Your task to perform on an android device: turn off wifi Image 0: 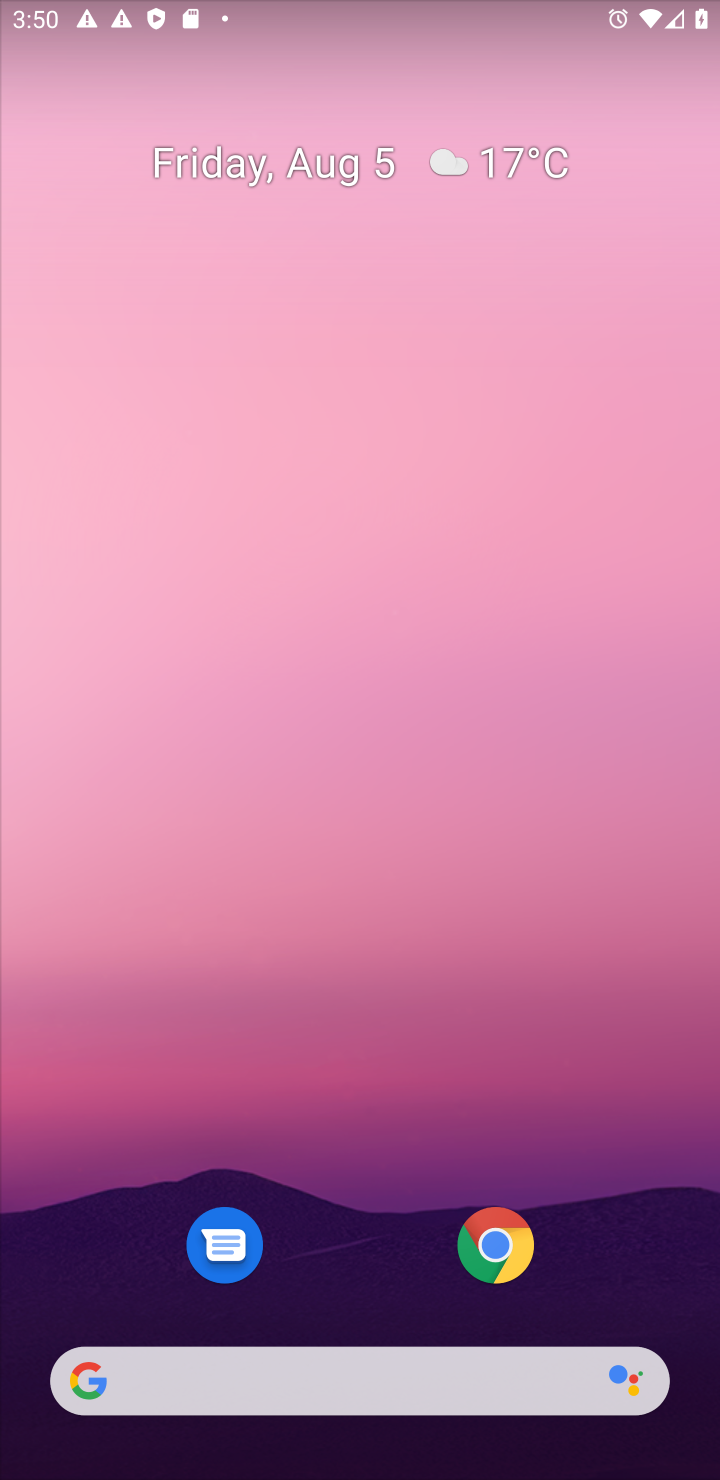
Step 0: drag from (68, 1313) to (432, 380)
Your task to perform on an android device: turn off wifi Image 1: 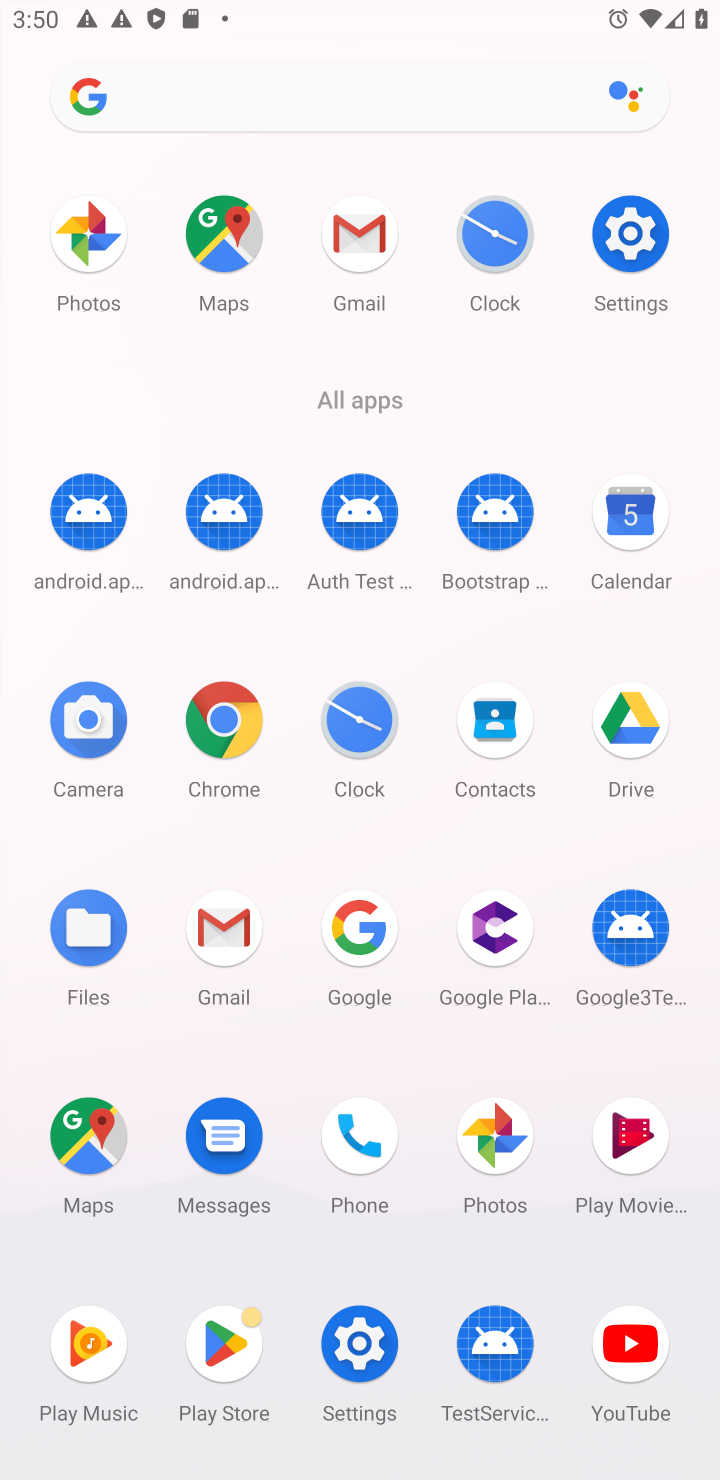
Step 1: click (355, 1355)
Your task to perform on an android device: turn off wifi Image 2: 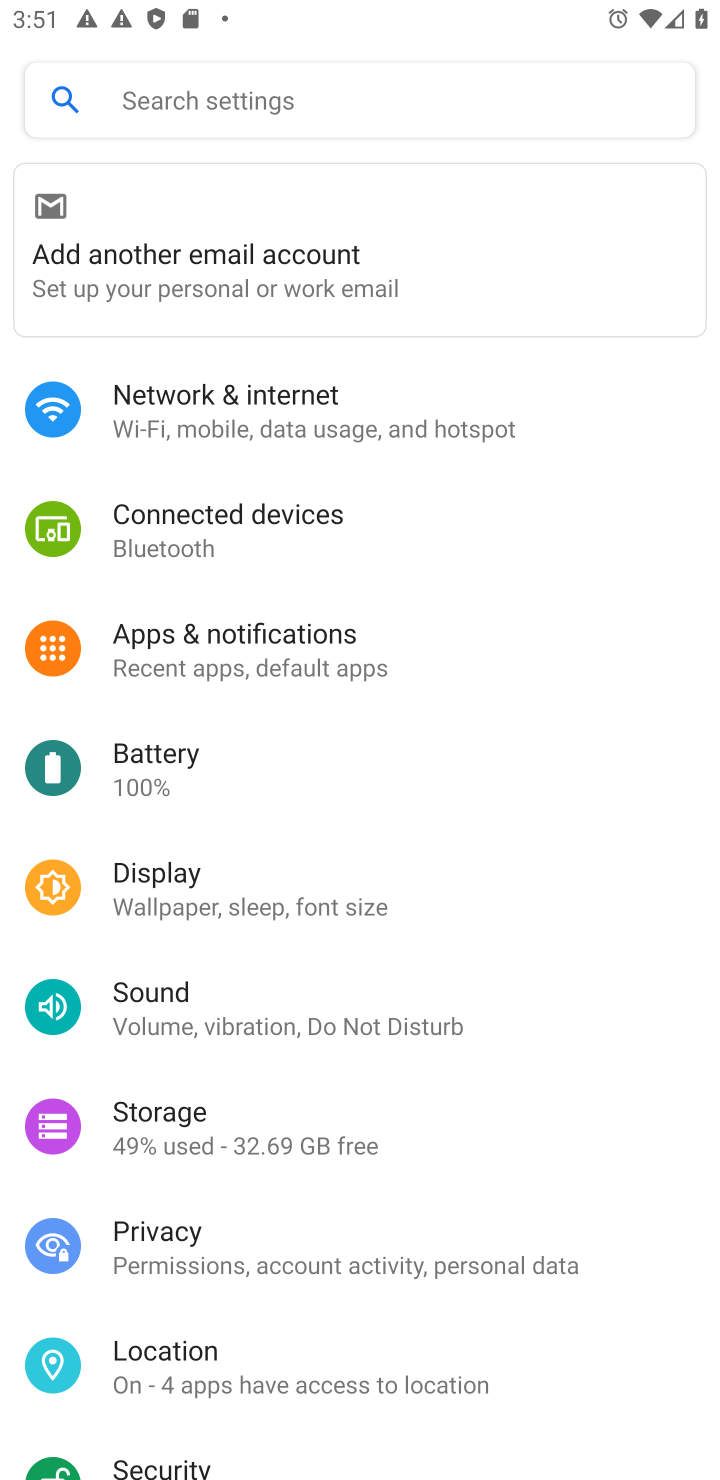
Step 2: click (284, 415)
Your task to perform on an android device: turn off wifi Image 3: 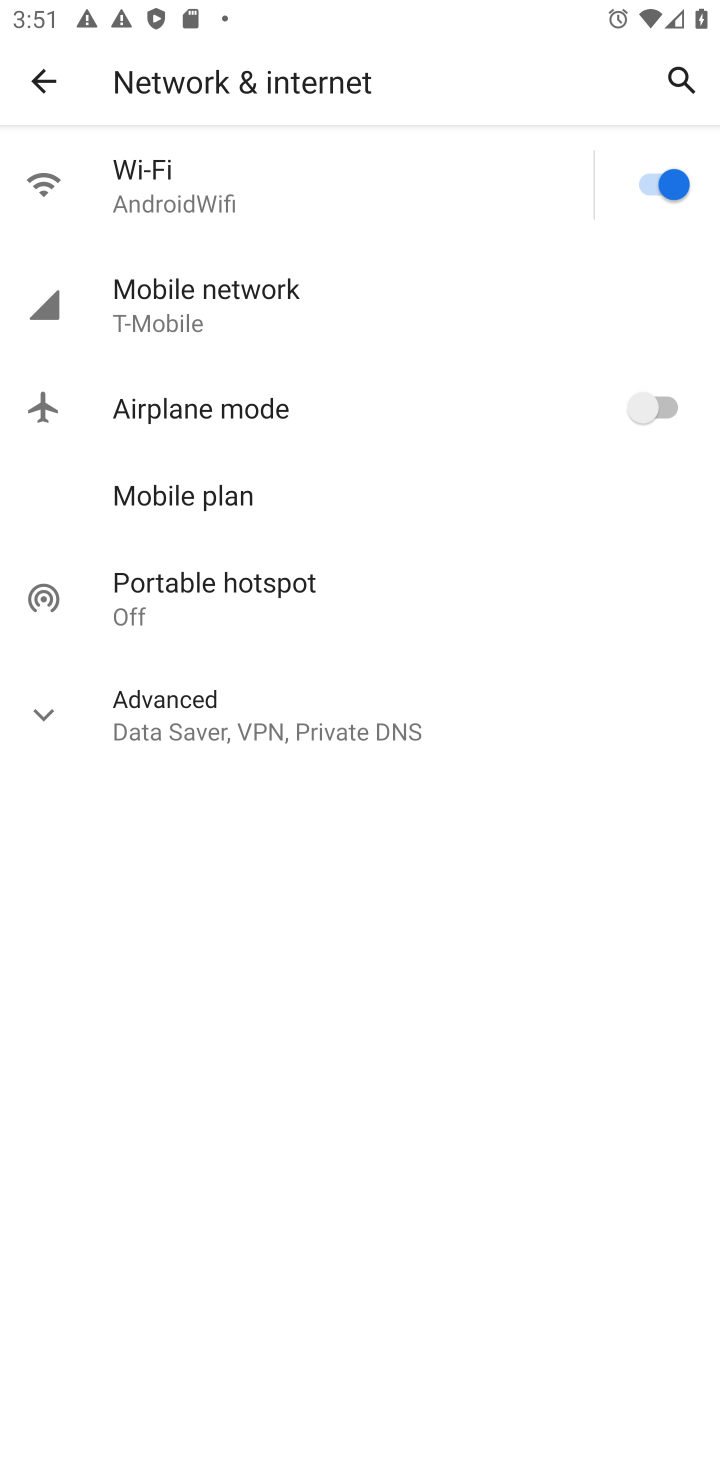
Step 3: click (660, 183)
Your task to perform on an android device: turn off wifi Image 4: 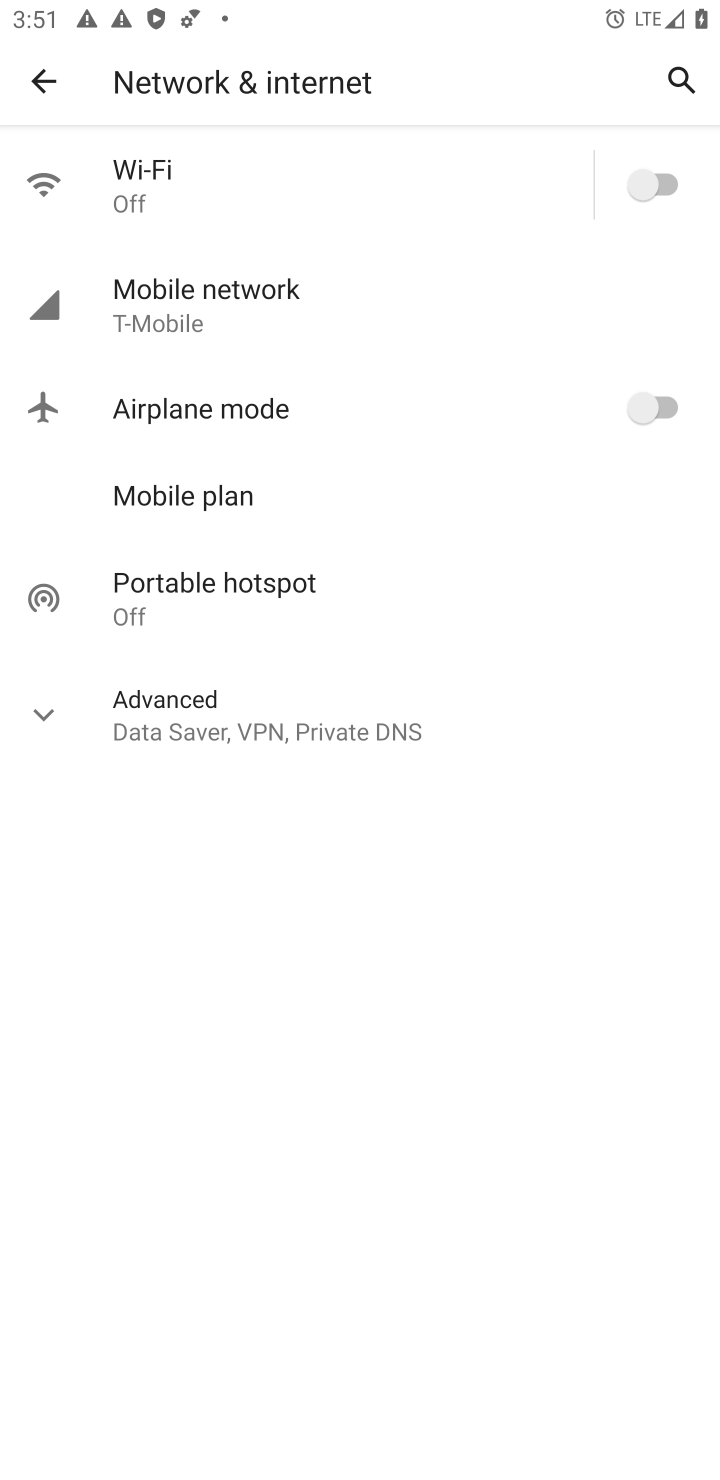
Step 4: task complete